Your task to perform on an android device: change alarm snooze length Image 0: 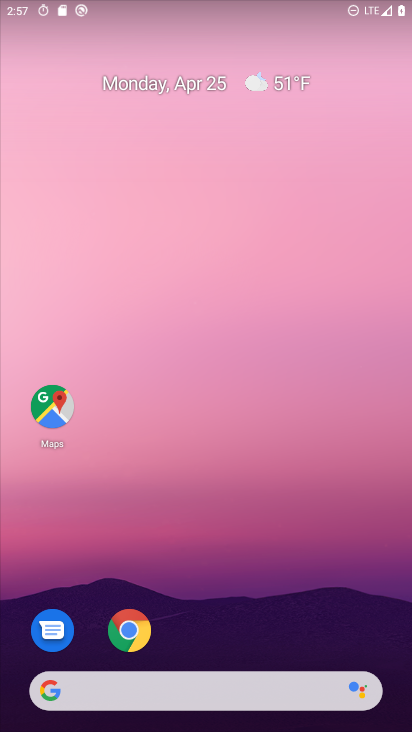
Step 0: drag from (208, 647) to (203, 93)
Your task to perform on an android device: change alarm snooze length Image 1: 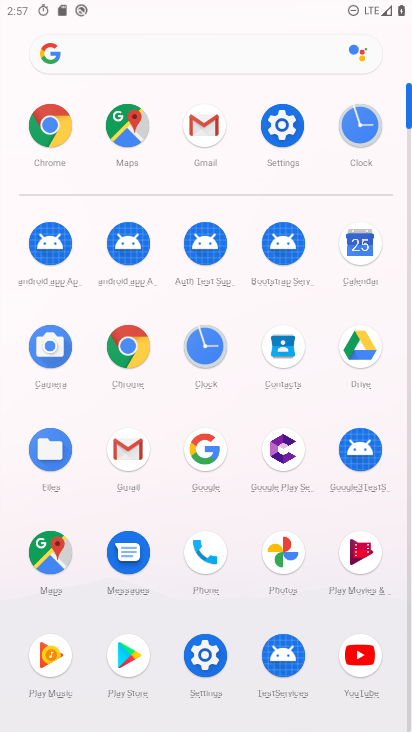
Step 1: click (206, 655)
Your task to perform on an android device: change alarm snooze length Image 2: 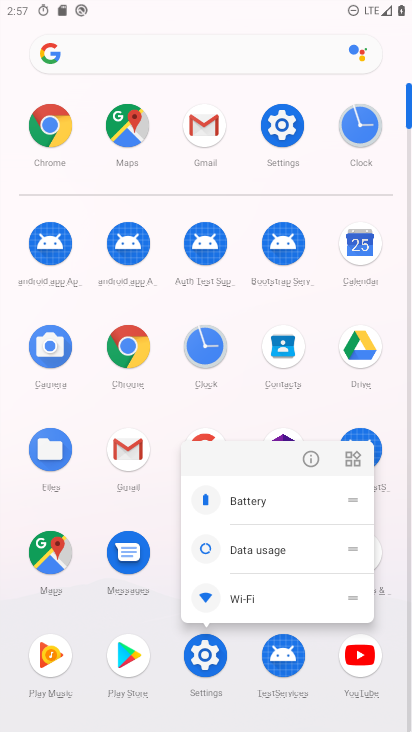
Step 2: click (204, 332)
Your task to perform on an android device: change alarm snooze length Image 3: 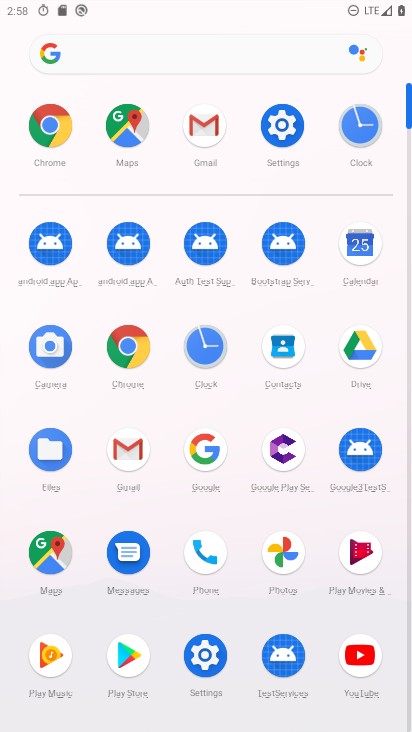
Step 3: click (207, 337)
Your task to perform on an android device: change alarm snooze length Image 4: 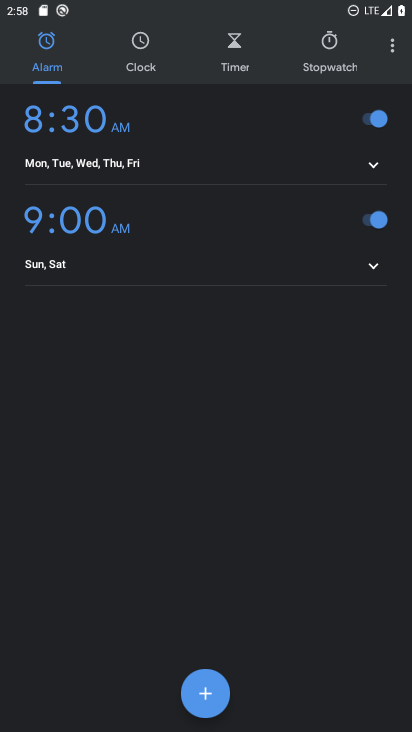
Step 4: drag from (391, 49) to (302, 89)
Your task to perform on an android device: change alarm snooze length Image 5: 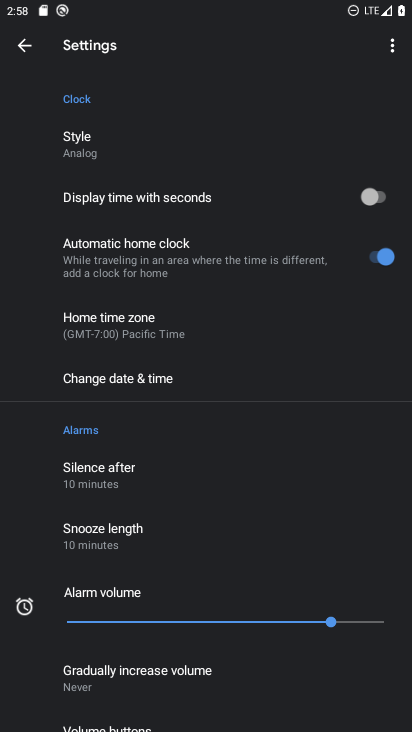
Step 5: click (123, 546)
Your task to perform on an android device: change alarm snooze length Image 6: 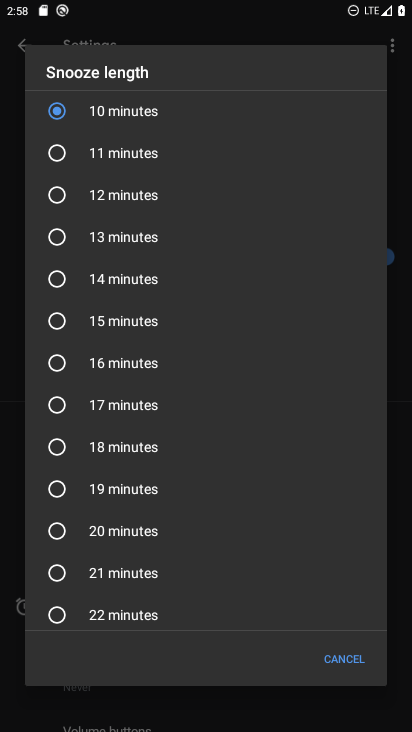
Step 6: click (76, 363)
Your task to perform on an android device: change alarm snooze length Image 7: 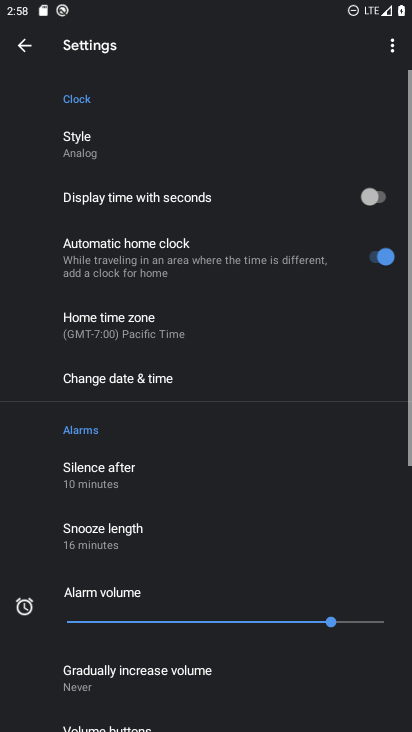
Step 7: task complete